Your task to perform on an android device: Go to CNN.com Image 0: 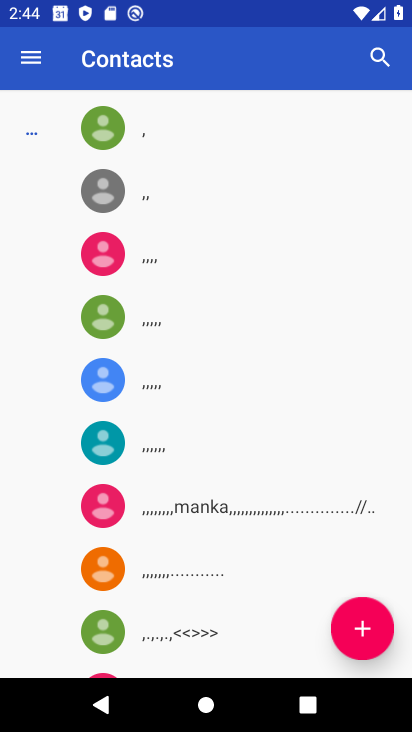
Step 0: press home button
Your task to perform on an android device: Go to CNN.com Image 1: 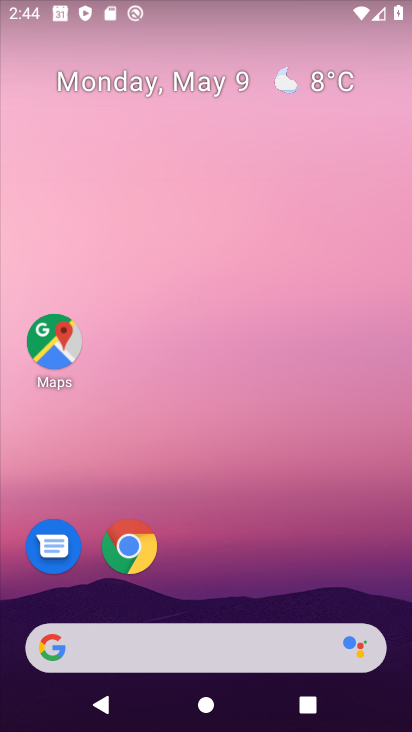
Step 1: click (179, 669)
Your task to perform on an android device: Go to CNN.com Image 2: 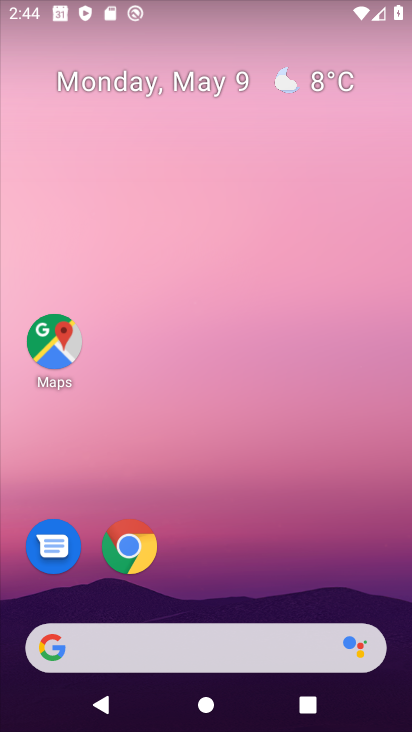
Step 2: click (183, 660)
Your task to perform on an android device: Go to CNN.com Image 3: 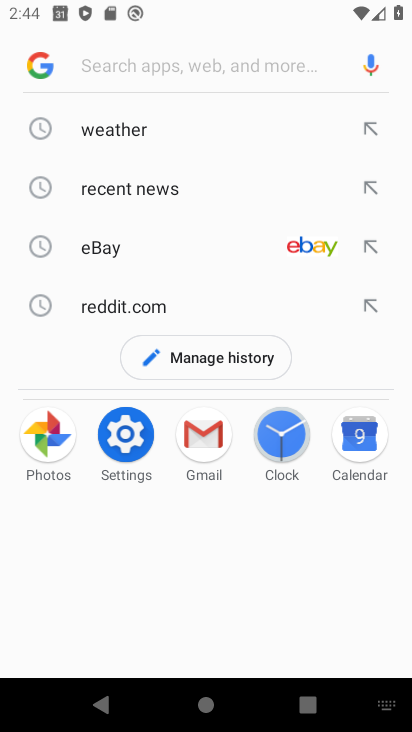
Step 3: type "cnn.com"
Your task to perform on an android device: Go to CNN.com Image 4: 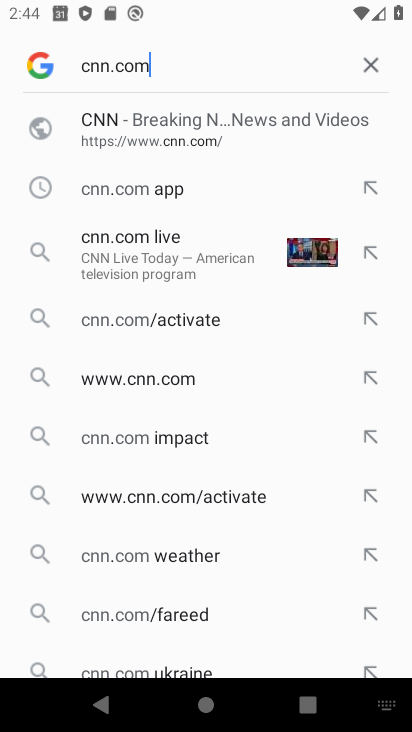
Step 4: click (94, 125)
Your task to perform on an android device: Go to CNN.com Image 5: 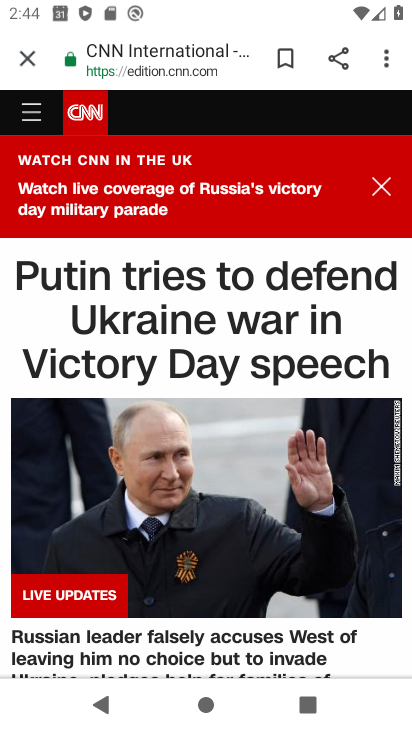
Step 5: task complete